Your task to perform on an android device: What's on my calendar tomorrow? Image 0: 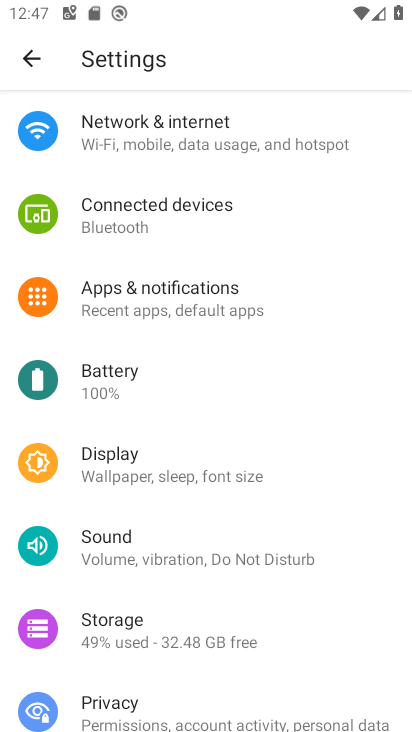
Step 0: press home button
Your task to perform on an android device: What's on my calendar tomorrow? Image 1: 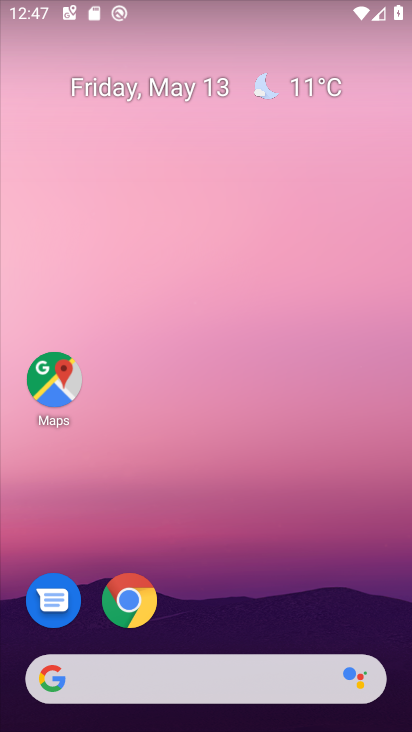
Step 1: drag from (201, 517) to (255, 33)
Your task to perform on an android device: What's on my calendar tomorrow? Image 2: 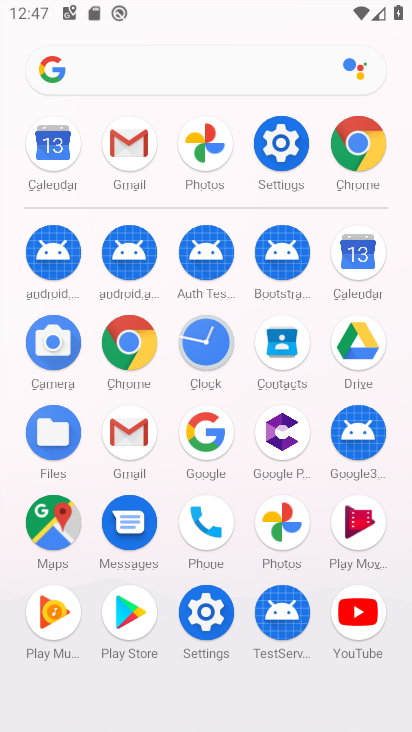
Step 2: click (354, 267)
Your task to perform on an android device: What's on my calendar tomorrow? Image 3: 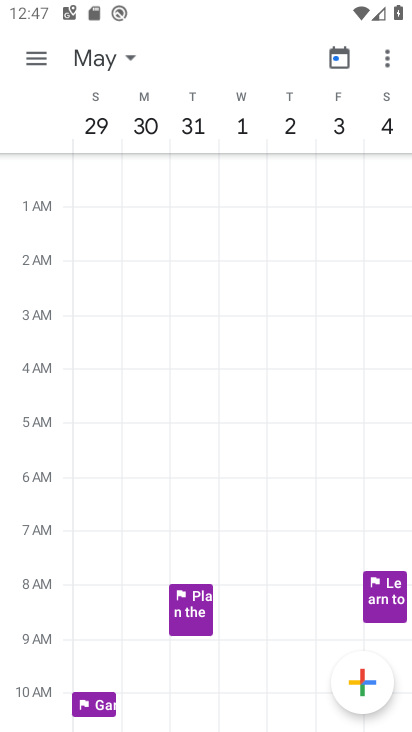
Step 3: click (36, 62)
Your task to perform on an android device: What's on my calendar tomorrow? Image 4: 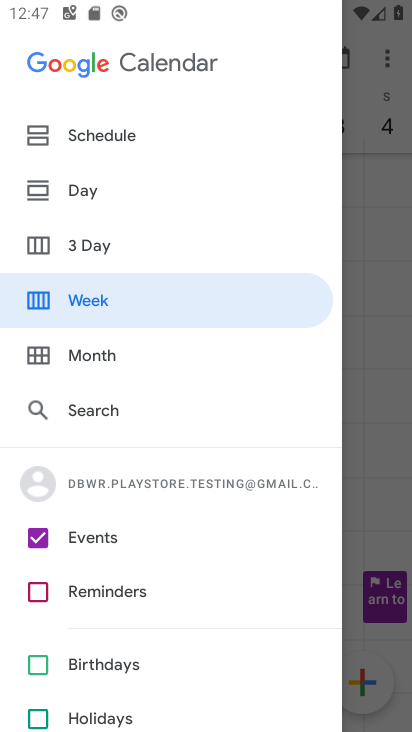
Step 4: click (95, 191)
Your task to perform on an android device: What's on my calendar tomorrow? Image 5: 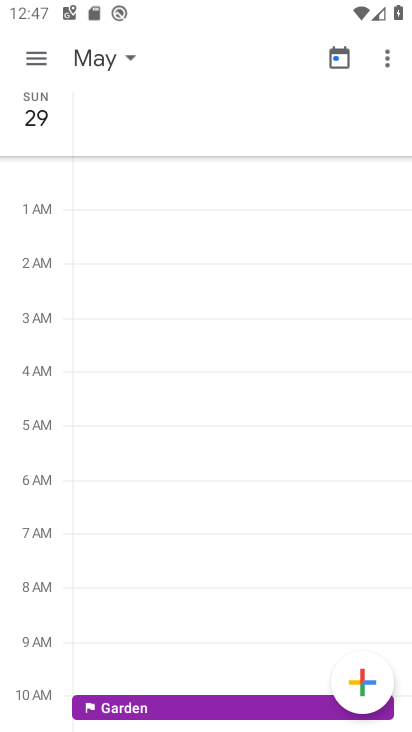
Step 5: click (42, 56)
Your task to perform on an android device: What's on my calendar tomorrow? Image 6: 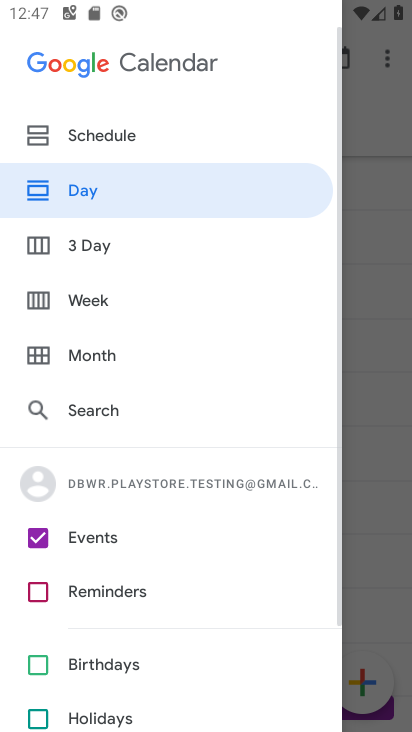
Step 6: click (100, 129)
Your task to perform on an android device: What's on my calendar tomorrow? Image 7: 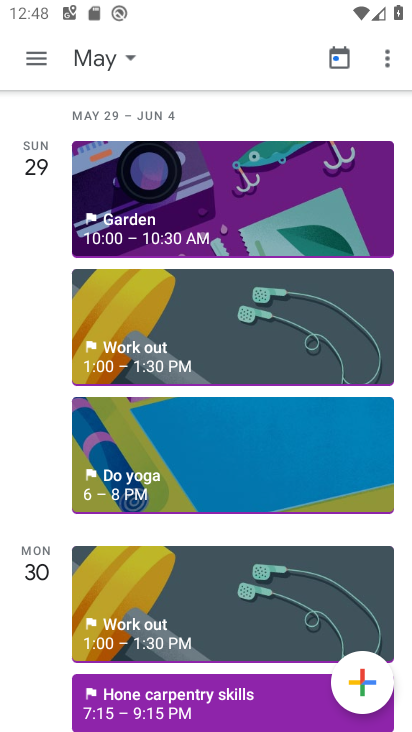
Step 7: click (29, 573)
Your task to perform on an android device: What's on my calendar tomorrow? Image 8: 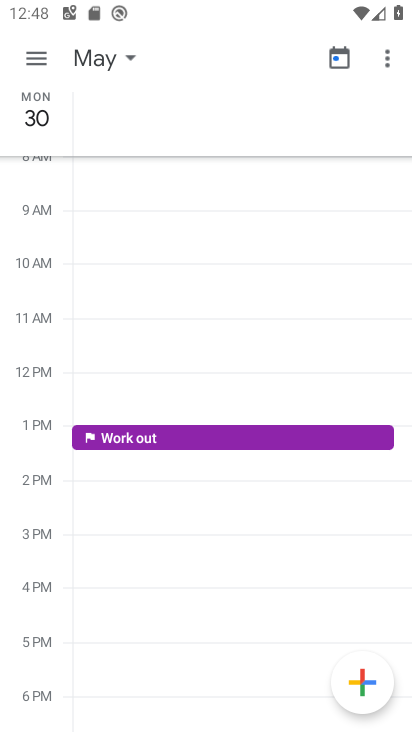
Step 8: task complete